Your task to perform on an android device: toggle show notifications on the lock screen Image 0: 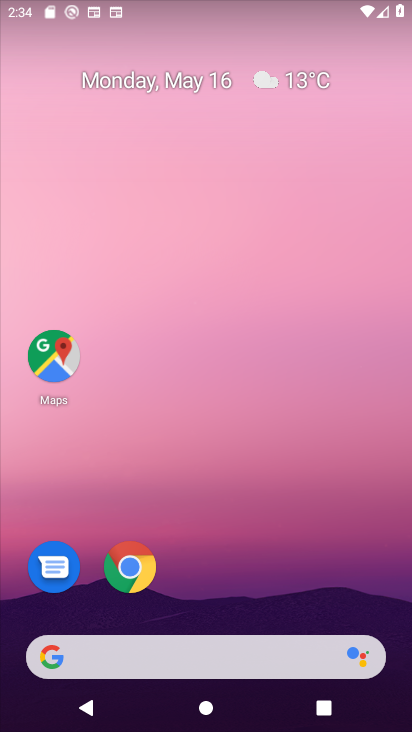
Step 0: drag from (282, 613) to (381, 206)
Your task to perform on an android device: toggle show notifications on the lock screen Image 1: 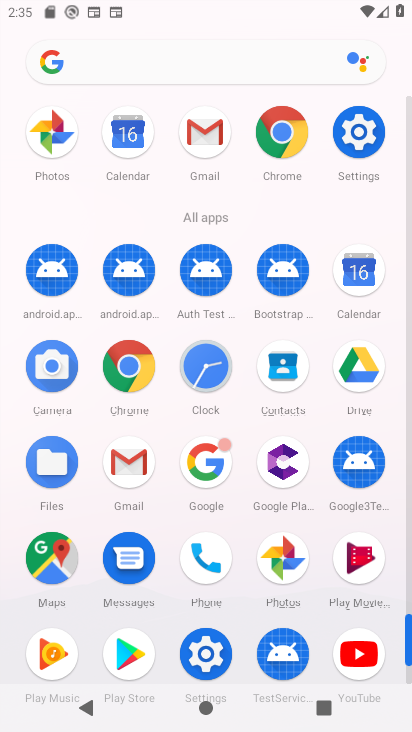
Step 1: click (359, 150)
Your task to perform on an android device: toggle show notifications on the lock screen Image 2: 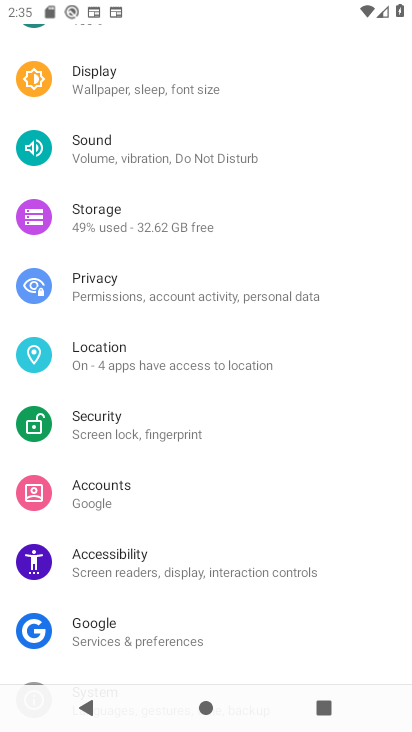
Step 2: drag from (177, 133) to (184, 502)
Your task to perform on an android device: toggle show notifications on the lock screen Image 3: 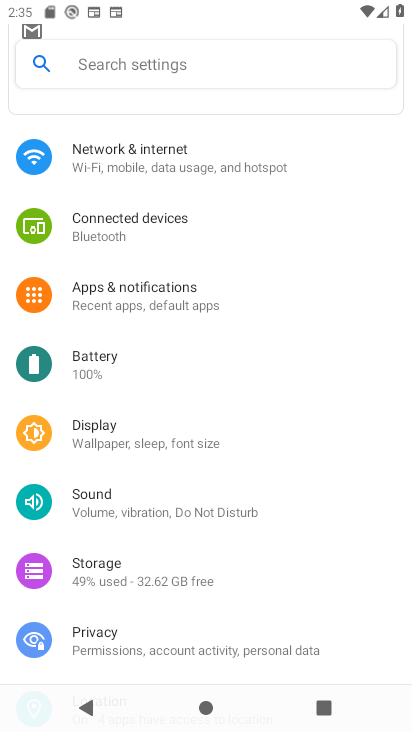
Step 3: click (144, 294)
Your task to perform on an android device: toggle show notifications on the lock screen Image 4: 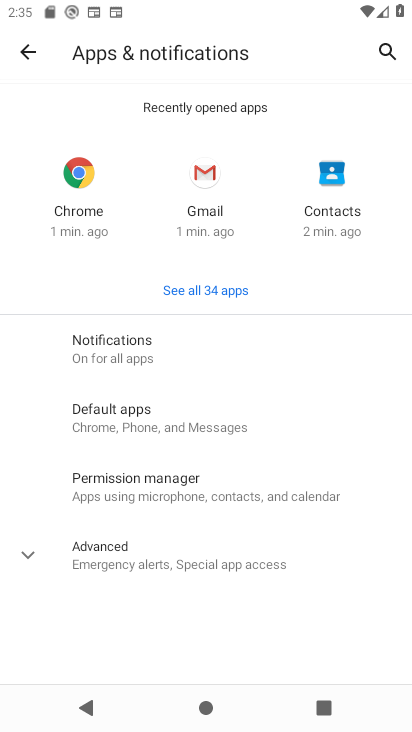
Step 4: click (107, 336)
Your task to perform on an android device: toggle show notifications on the lock screen Image 5: 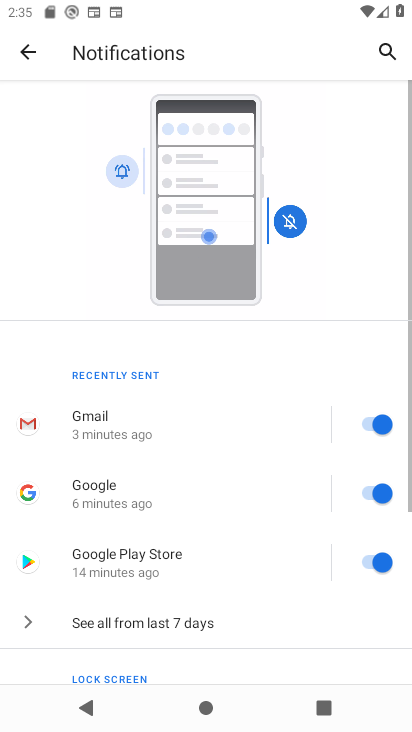
Step 5: drag from (183, 622) to (163, 329)
Your task to perform on an android device: toggle show notifications on the lock screen Image 6: 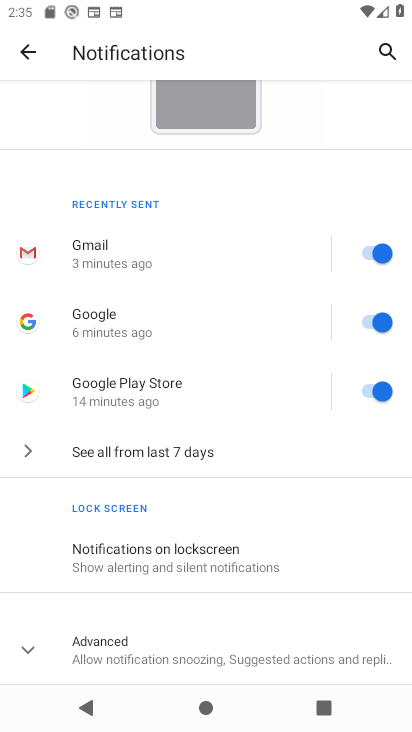
Step 6: click (156, 544)
Your task to perform on an android device: toggle show notifications on the lock screen Image 7: 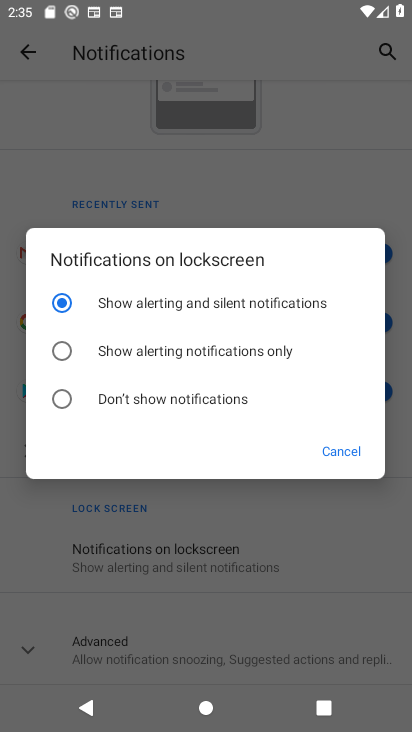
Step 7: click (104, 393)
Your task to perform on an android device: toggle show notifications on the lock screen Image 8: 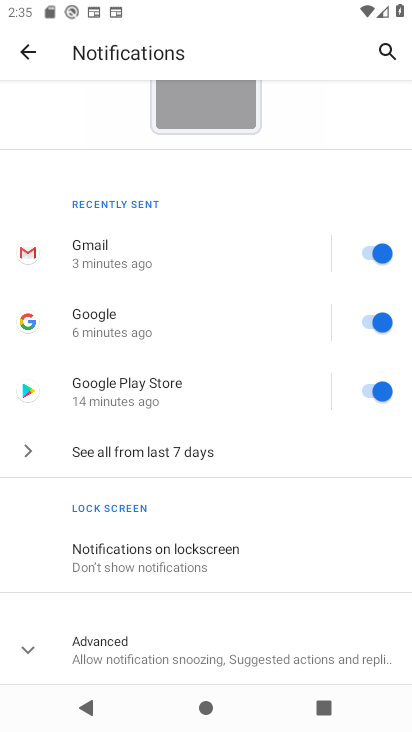
Step 8: task complete